Your task to perform on an android device: check google app version Image 0: 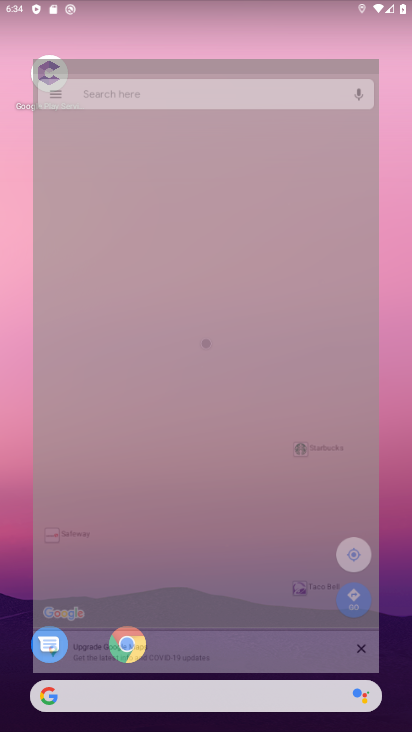
Step 0: drag from (184, 623) to (255, 4)
Your task to perform on an android device: check google app version Image 1: 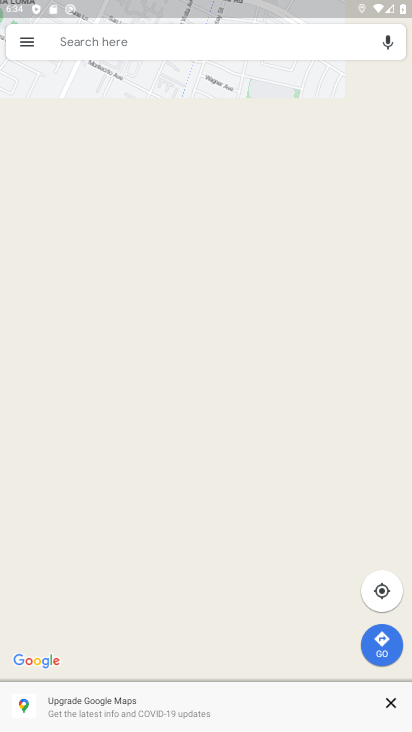
Step 1: press home button
Your task to perform on an android device: check google app version Image 2: 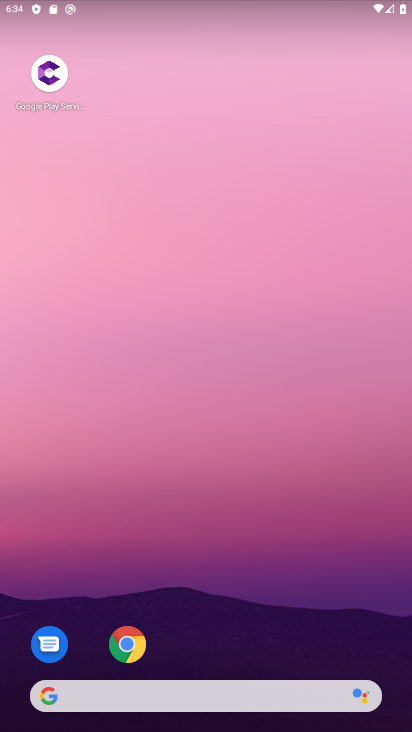
Step 2: click (136, 704)
Your task to perform on an android device: check google app version Image 3: 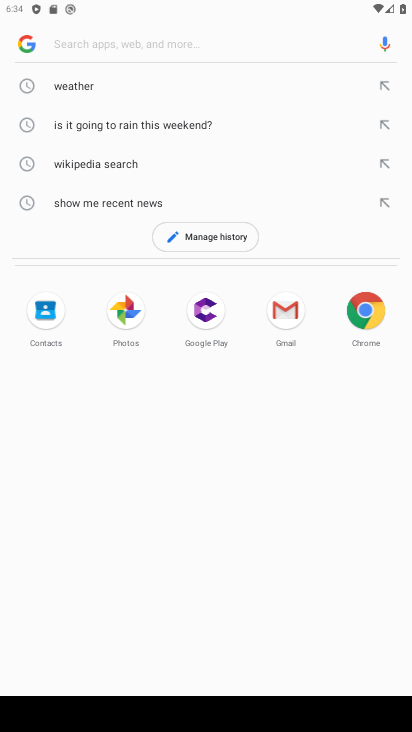
Step 3: click (22, 39)
Your task to perform on an android device: check google app version Image 4: 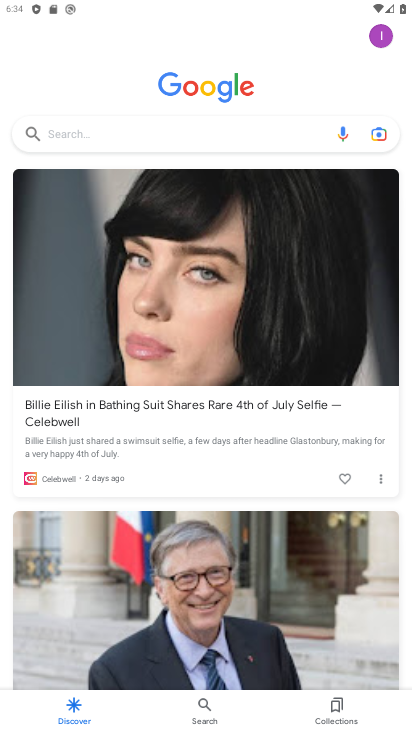
Step 4: click (378, 36)
Your task to perform on an android device: check google app version Image 5: 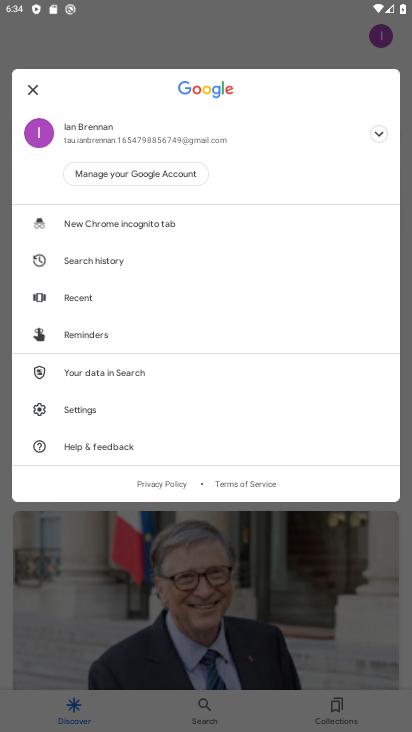
Step 5: click (69, 415)
Your task to perform on an android device: check google app version Image 6: 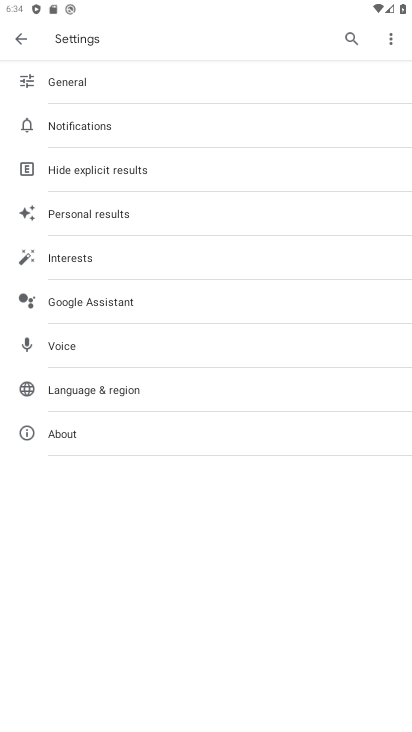
Step 6: click (65, 422)
Your task to perform on an android device: check google app version Image 7: 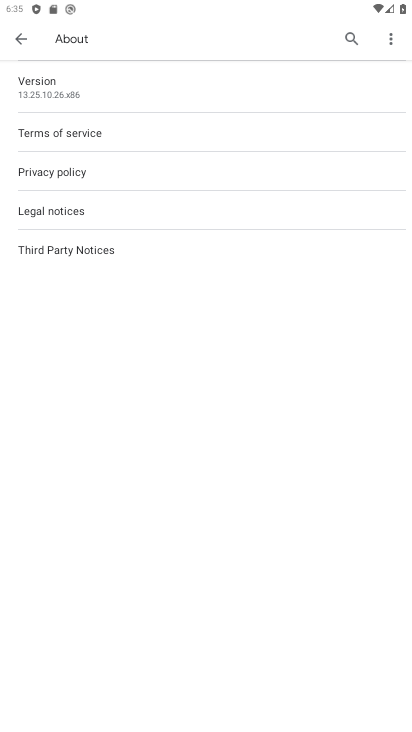
Step 7: task complete